Your task to perform on an android device: What's the weather going to be this weekend? Image 0: 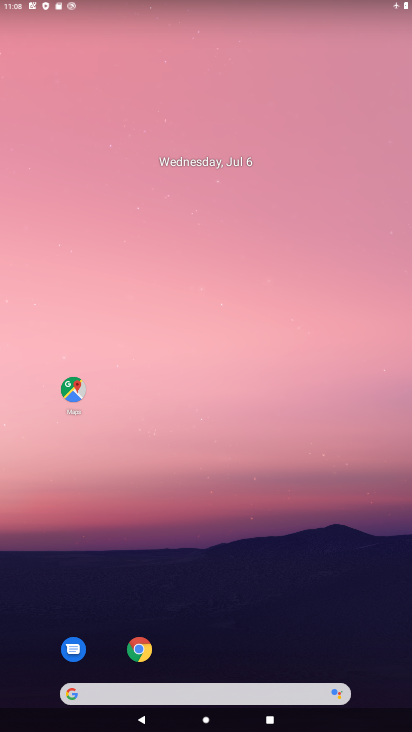
Step 0: drag from (391, 700) to (232, 27)
Your task to perform on an android device: What's the weather going to be this weekend? Image 1: 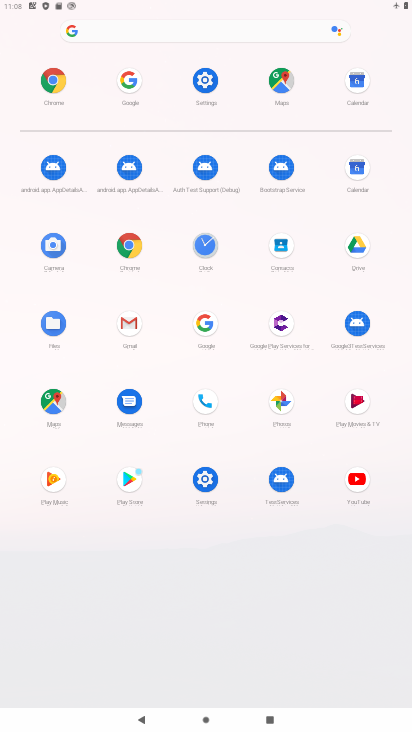
Step 1: click (199, 333)
Your task to perform on an android device: What's the weather going to be this weekend? Image 2: 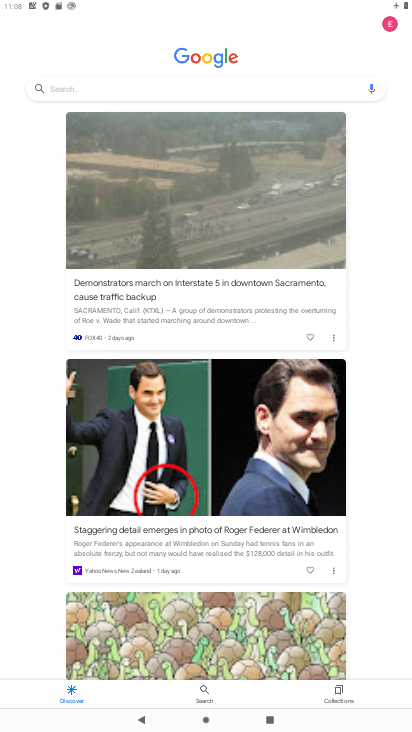
Step 2: click (67, 91)
Your task to perform on an android device: What's the weather going to be this weekend? Image 3: 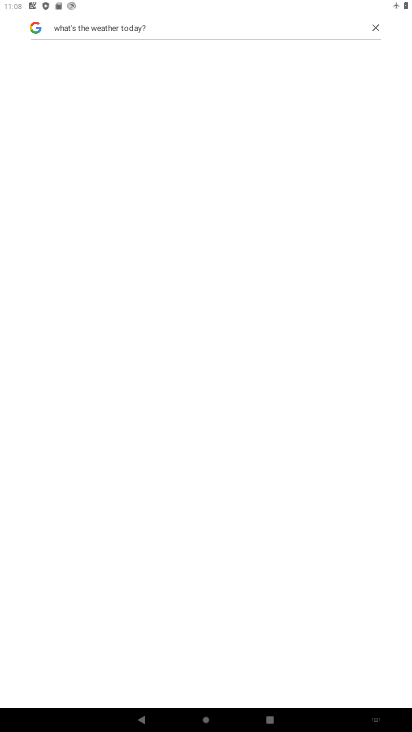
Step 3: click (373, 28)
Your task to perform on an android device: What's the weather going to be this weekend? Image 4: 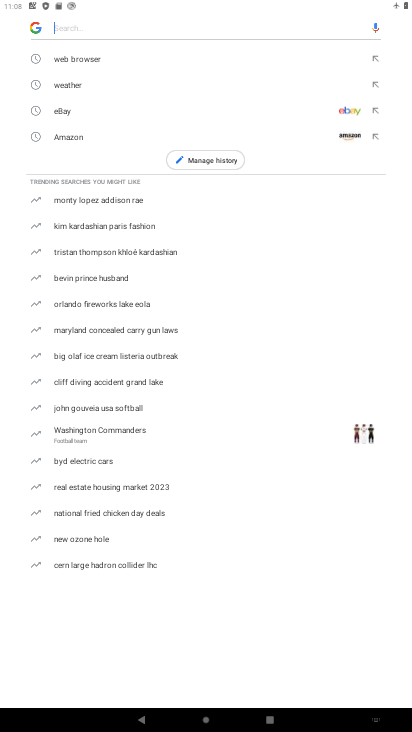
Step 4: type "what's the weather going to be this weekend?"
Your task to perform on an android device: What's the weather going to be this weekend? Image 5: 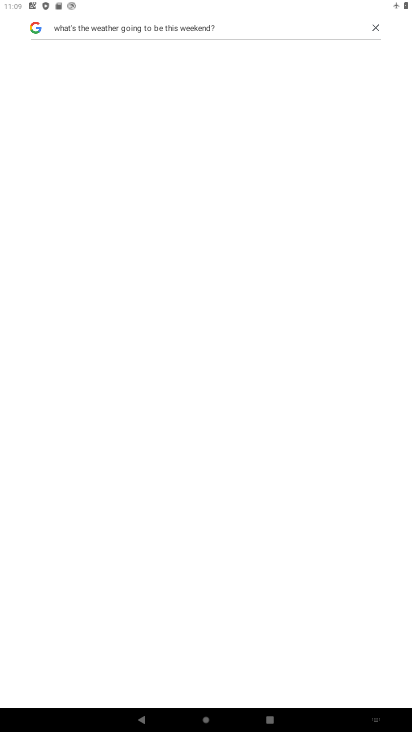
Step 5: task complete